Your task to perform on an android device: Open a new incognito tab in the chrome app Image 0: 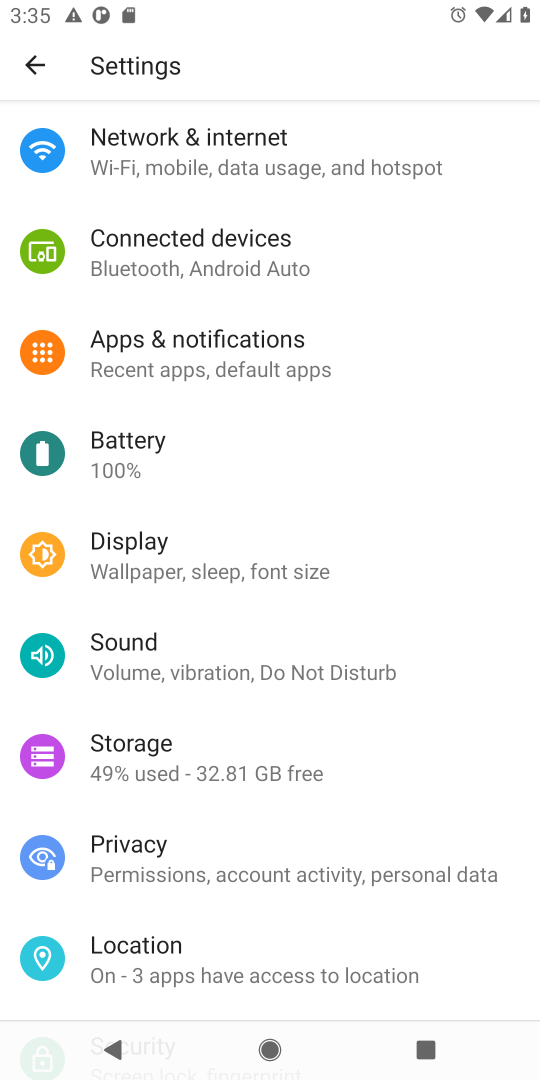
Step 0: press home button
Your task to perform on an android device: Open a new incognito tab in the chrome app Image 1: 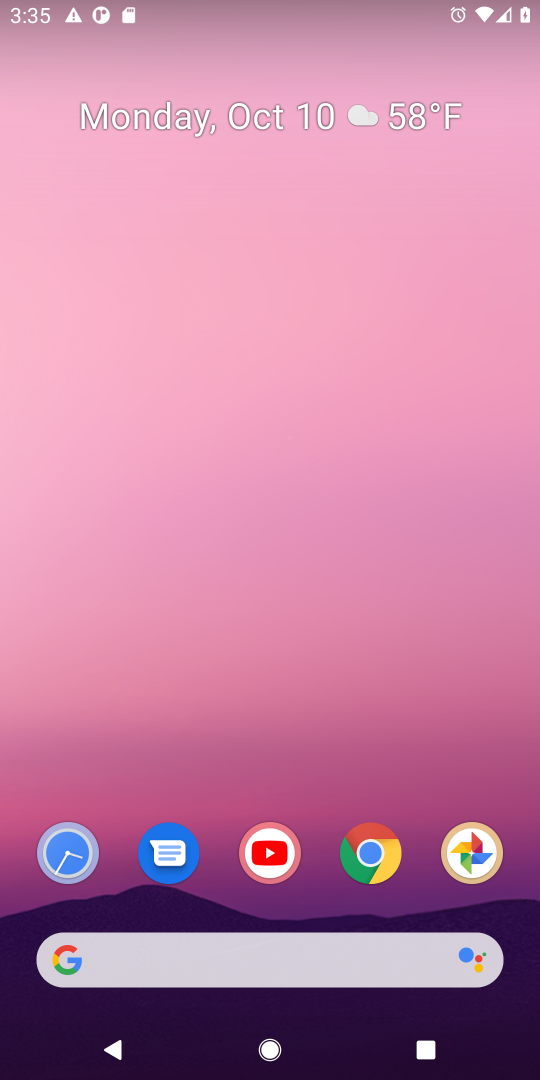
Step 1: click (380, 854)
Your task to perform on an android device: Open a new incognito tab in the chrome app Image 2: 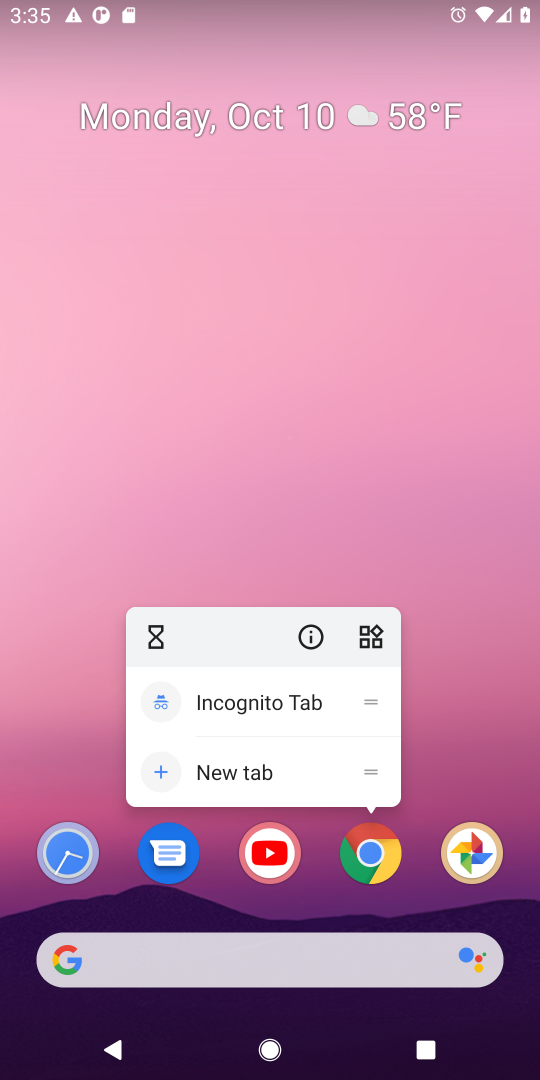
Step 2: click (375, 849)
Your task to perform on an android device: Open a new incognito tab in the chrome app Image 3: 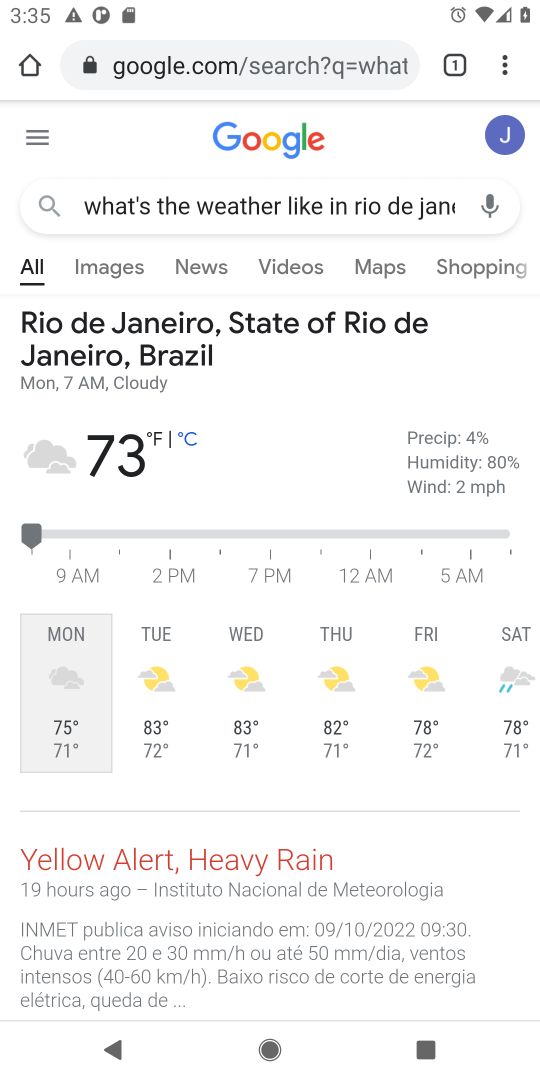
Step 3: click (181, 72)
Your task to perform on an android device: Open a new incognito tab in the chrome app Image 4: 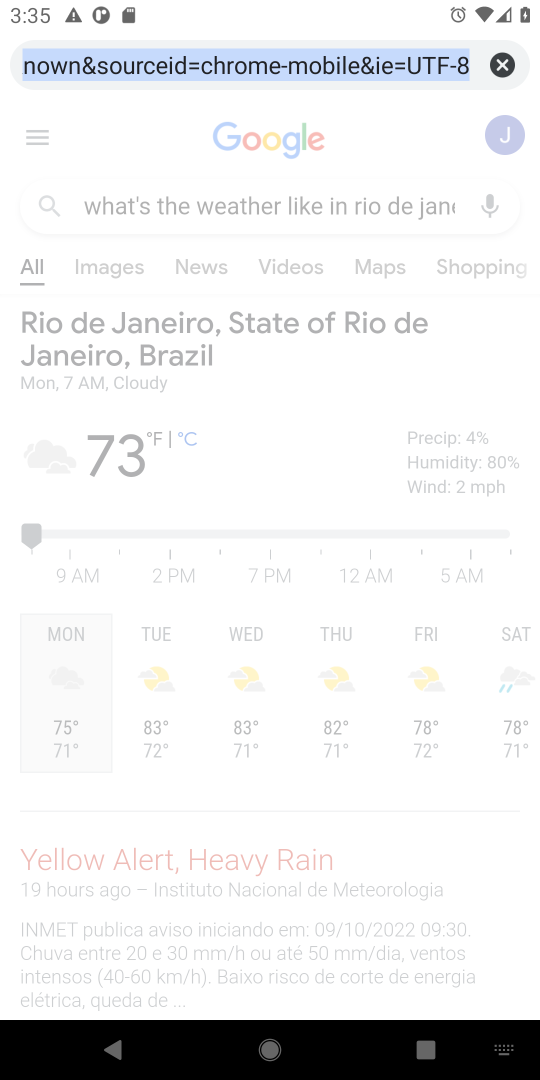
Step 4: click (505, 57)
Your task to perform on an android device: Open a new incognito tab in the chrome app Image 5: 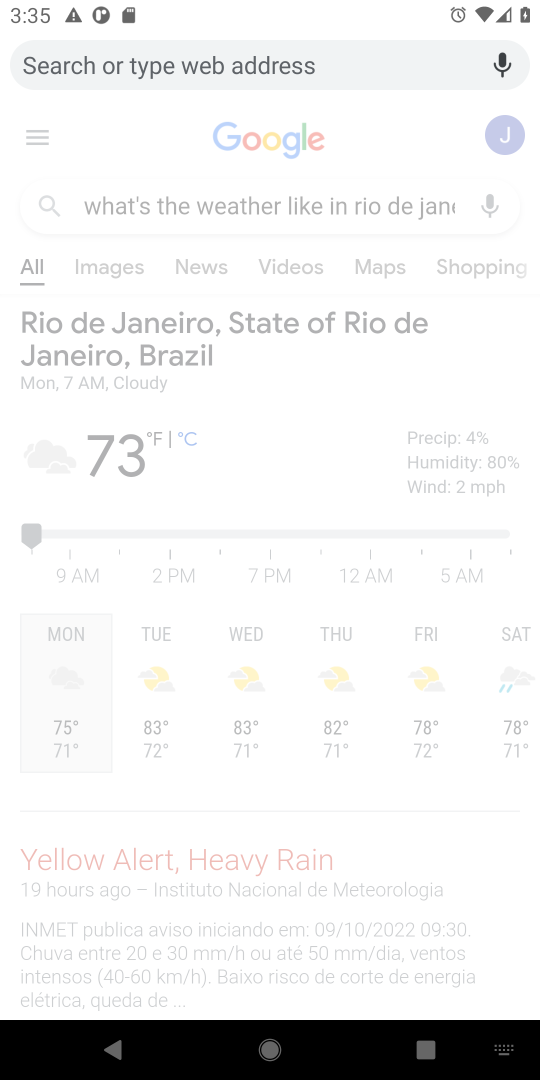
Step 5: type "Open a new incognito tab in the chrome app"
Your task to perform on an android device: Open a new incognito tab in the chrome app Image 6: 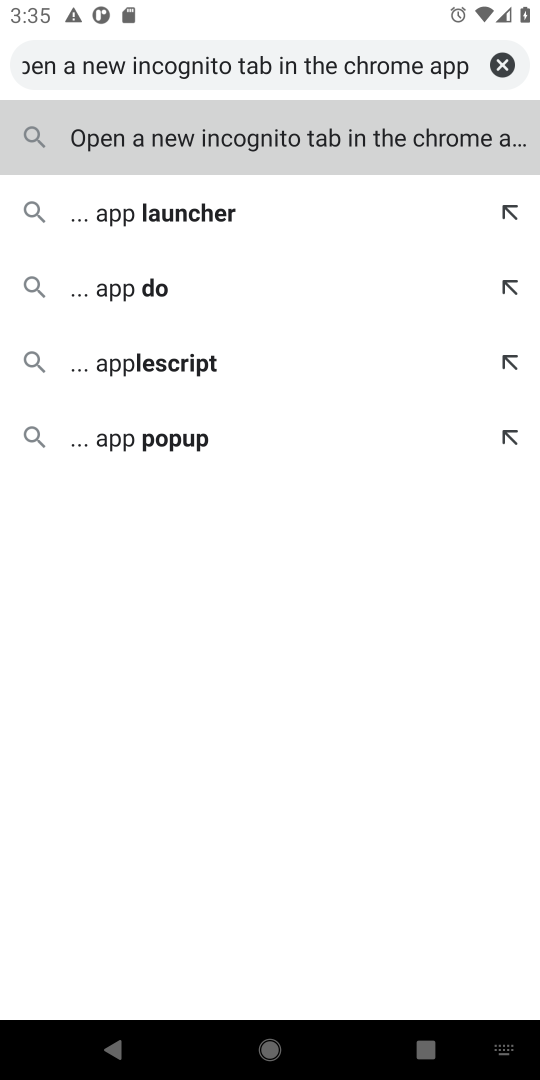
Step 6: click (407, 141)
Your task to perform on an android device: Open a new incognito tab in the chrome app Image 7: 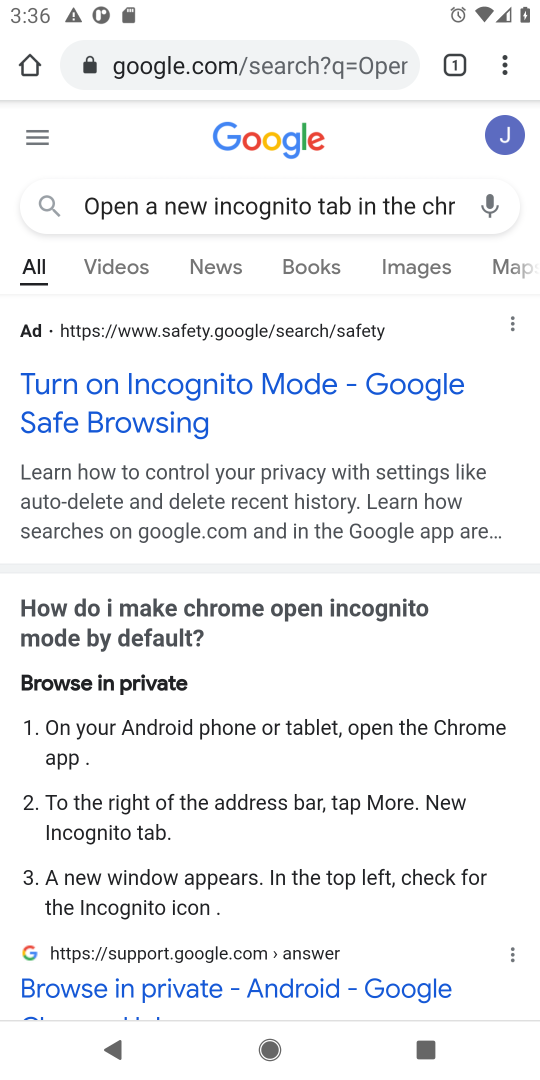
Step 7: task complete